Your task to perform on an android device: turn off location Image 0: 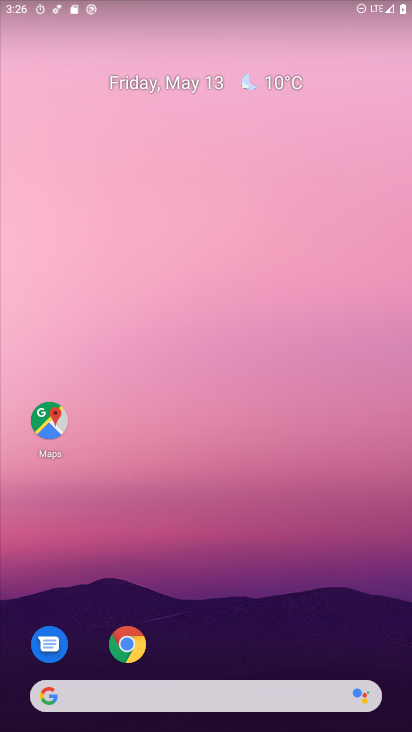
Step 0: drag from (301, 626) to (303, 0)
Your task to perform on an android device: turn off location Image 1: 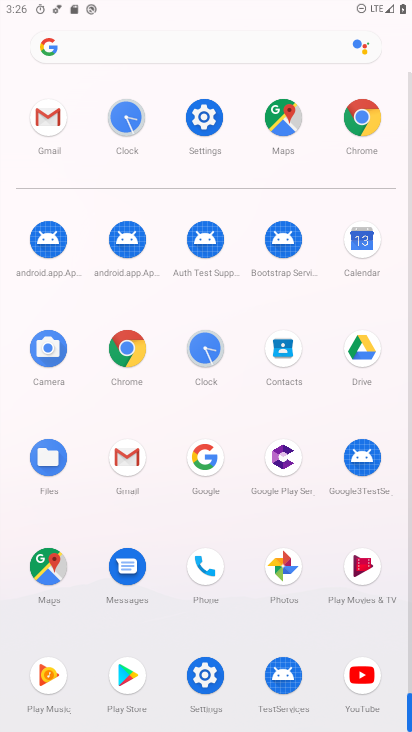
Step 1: click (202, 113)
Your task to perform on an android device: turn off location Image 2: 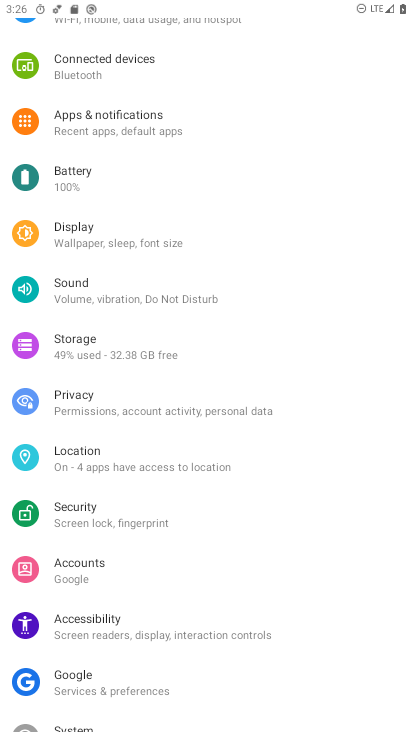
Step 2: click (97, 456)
Your task to perform on an android device: turn off location Image 3: 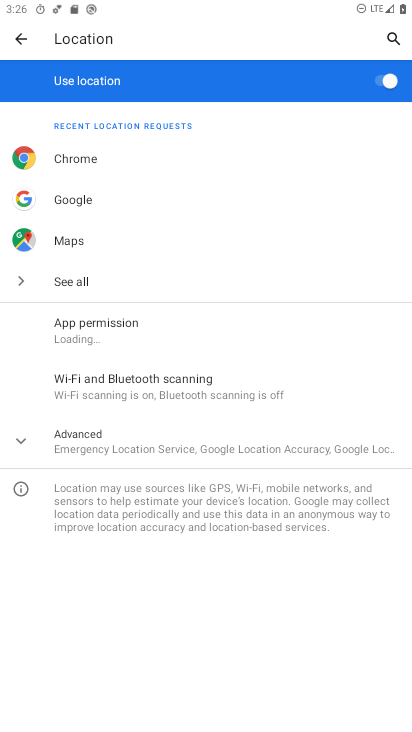
Step 3: click (375, 84)
Your task to perform on an android device: turn off location Image 4: 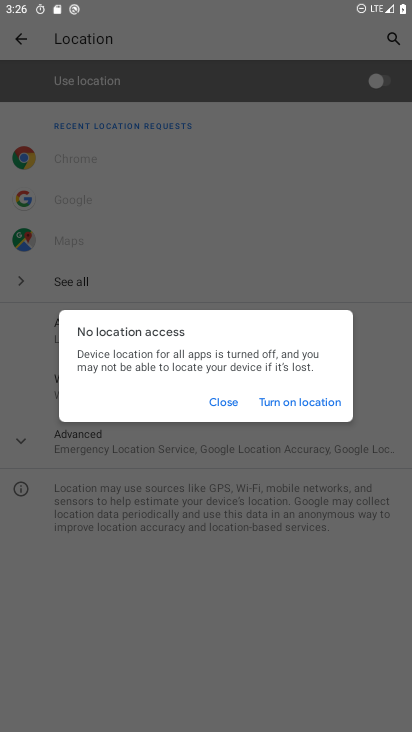
Step 4: task complete